Your task to perform on an android device: Go to privacy settings Image 0: 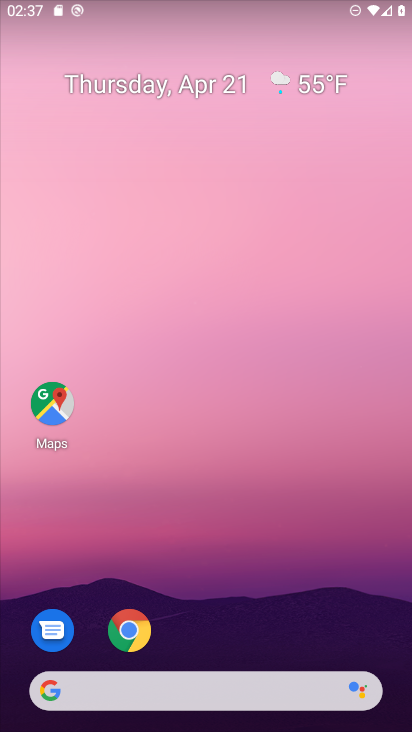
Step 0: drag from (237, 557) to (245, 206)
Your task to perform on an android device: Go to privacy settings Image 1: 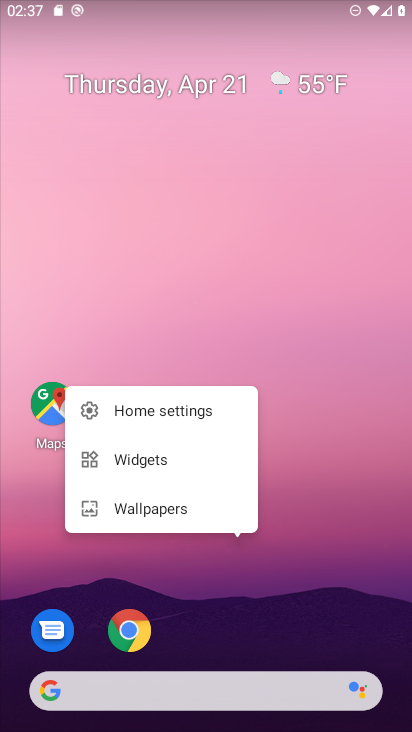
Step 1: click (304, 529)
Your task to perform on an android device: Go to privacy settings Image 2: 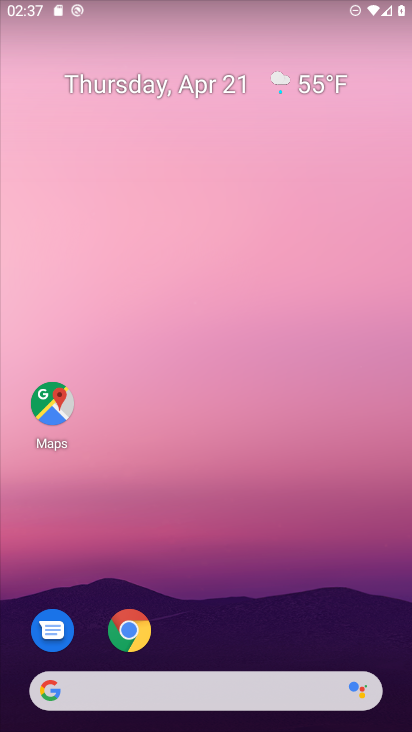
Step 2: drag from (288, 593) to (243, 114)
Your task to perform on an android device: Go to privacy settings Image 3: 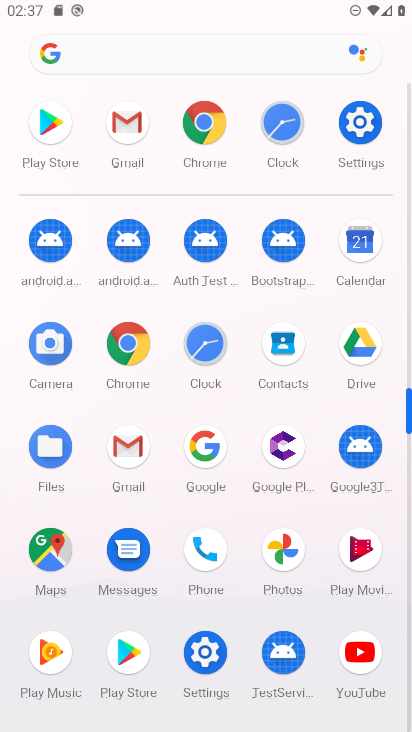
Step 3: click (344, 157)
Your task to perform on an android device: Go to privacy settings Image 4: 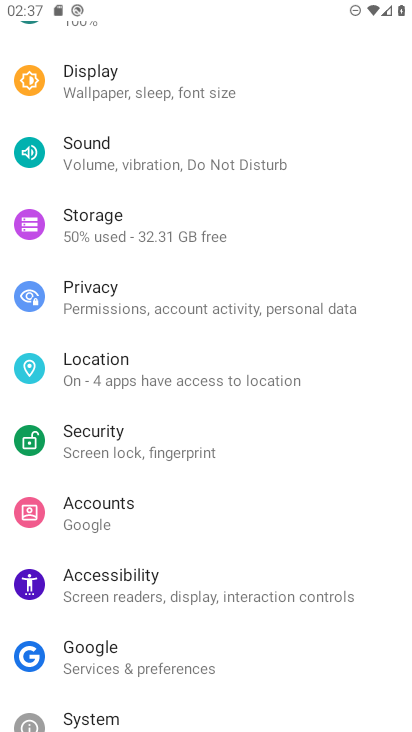
Step 4: drag from (231, 185) to (184, 543)
Your task to perform on an android device: Go to privacy settings Image 5: 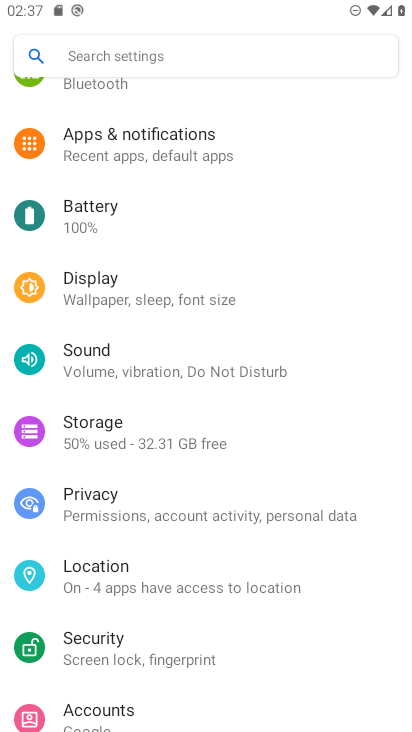
Step 5: drag from (260, 203) to (236, 606)
Your task to perform on an android device: Go to privacy settings Image 6: 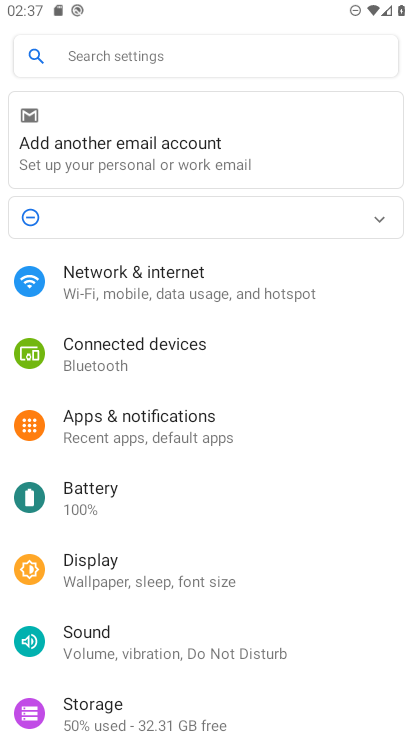
Step 6: drag from (201, 667) to (237, 20)
Your task to perform on an android device: Go to privacy settings Image 7: 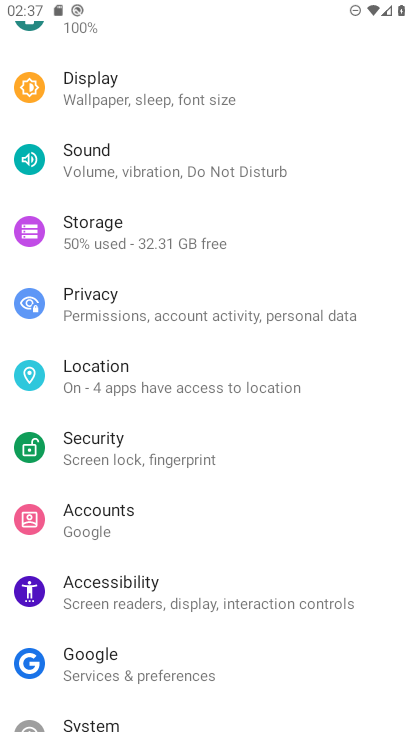
Step 7: drag from (242, 585) to (255, 75)
Your task to perform on an android device: Go to privacy settings Image 8: 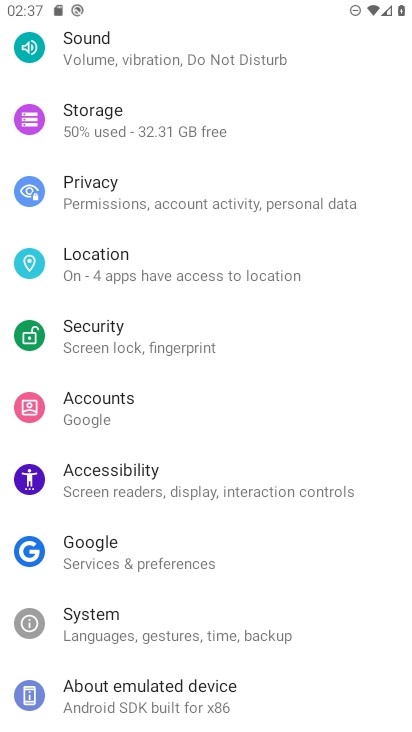
Step 8: click (213, 214)
Your task to perform on an android device: Go to privacy settings Image 9: 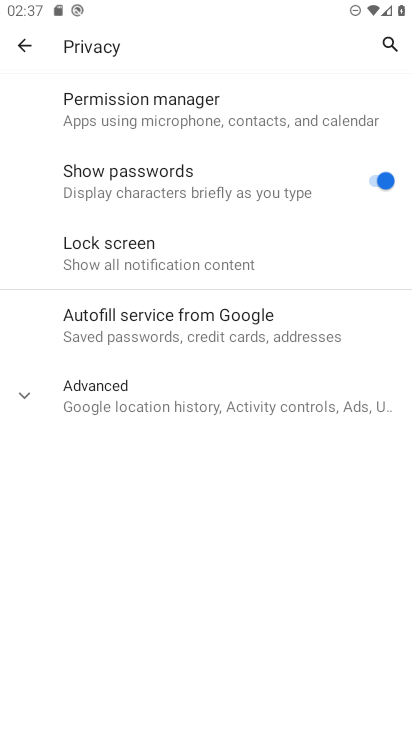
Step 9: task complete